Your task to perform on an android device: change keyboard looks Image 0: 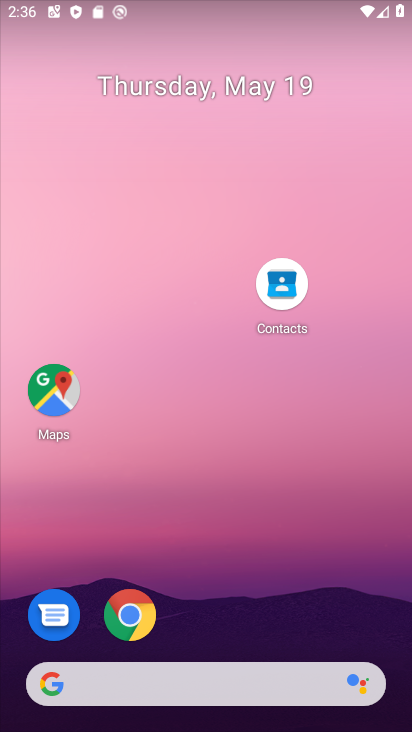
Step 0: drag from (225, 595) to (216, 106)
Your task to perform on an android device: change keyboard looks Image 1: 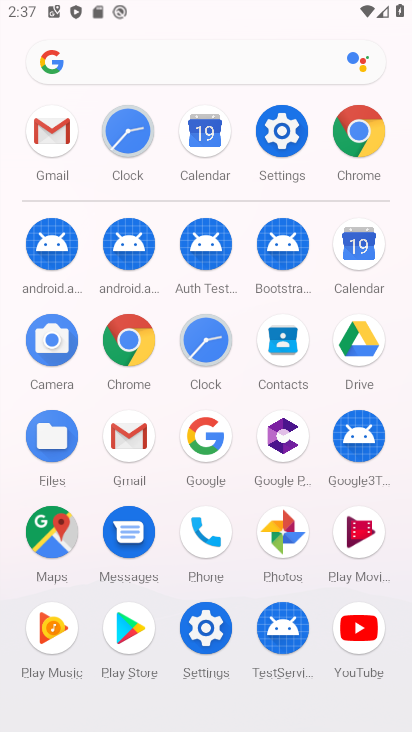
Step 1: click (277, 155)
Your task to perform on an android device: change keyboard looks Image 2: 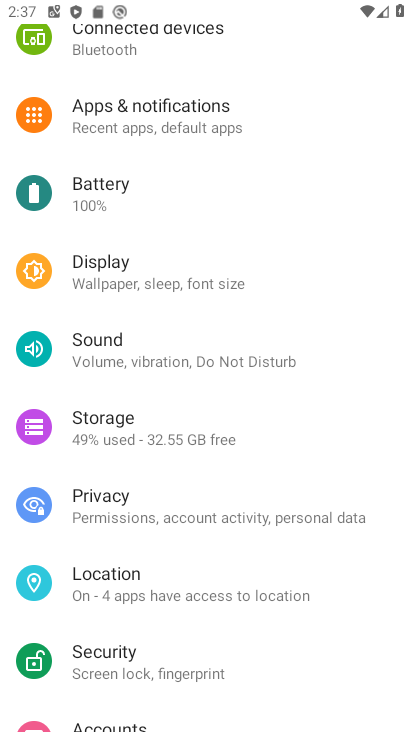
Step 2: drag from (168, 454) to (174, 97)
Your task to perform on an android device: change keyboard looks Image 3: 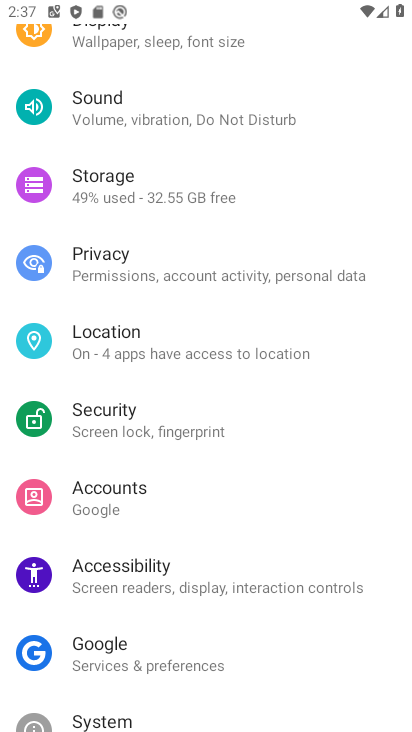
Step 3: drag from (185, 463) to (225, 57)
Your task to perform on an android device: change keyboard looks Image 4: 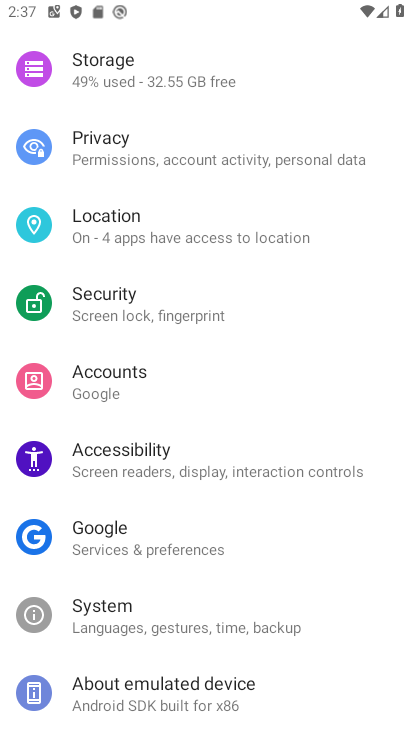
Step 4: click (158, 623)
Your task to perform on an android device: change keyboard looks Image 5: 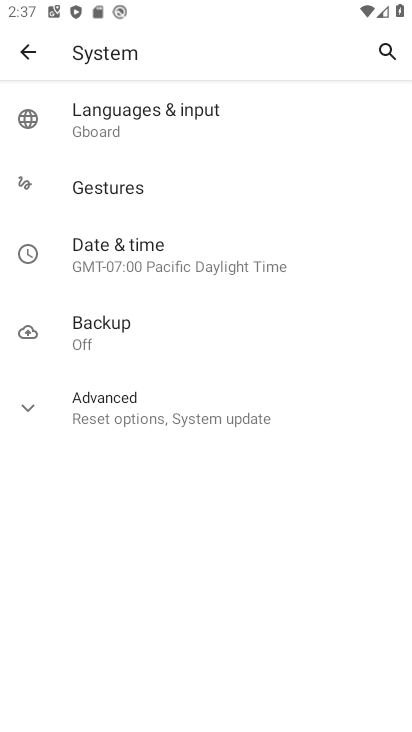
Step 5: click (218, 128)
Your task to perform on an android device: change keyboard looks Image 6: 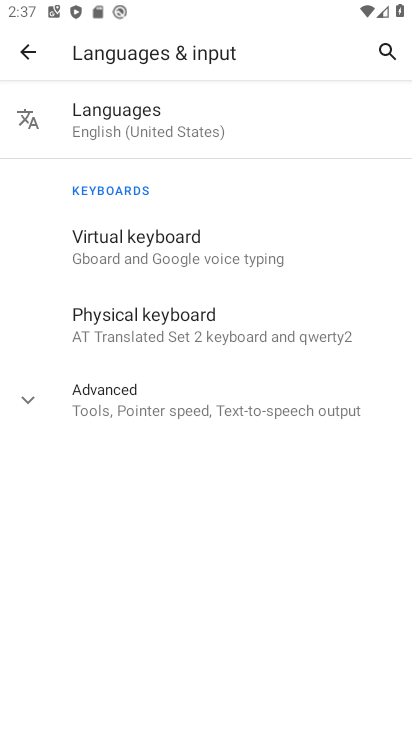
Step 6: click (196, 250)
Your task to perform on an android device: change keyboard looks Image 7: 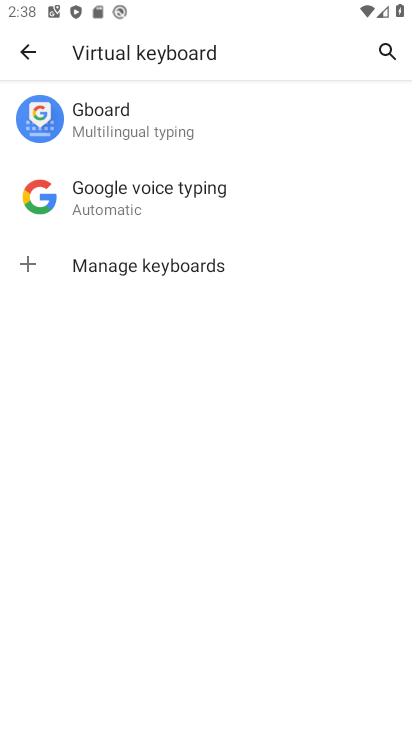
Step 7: click (196, 131)
Your task to perform on an android device: change keyboard looks Image 8: 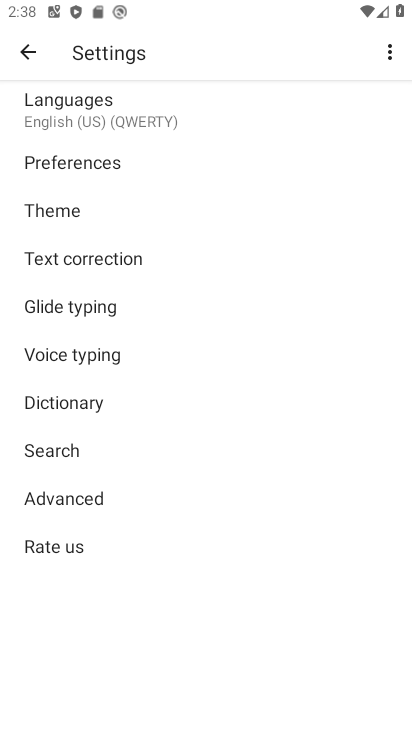
Step 8: click (166, 211)
Your task to perform on an android device: change keyboard looks Image 9: 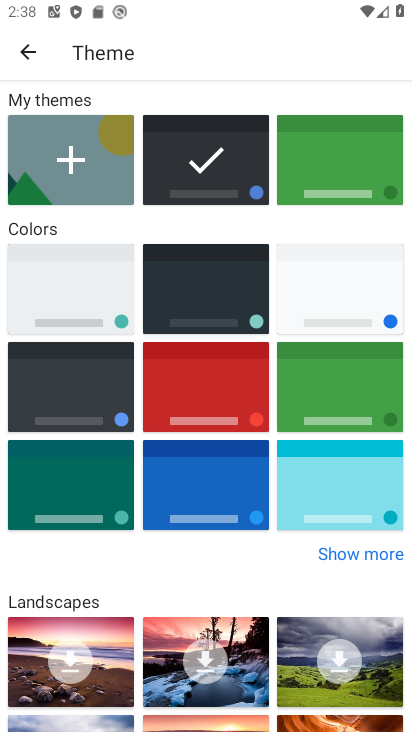
Step 9: click (362, 180)
Your task to perform on an android device: change keyboard looks Image 10: 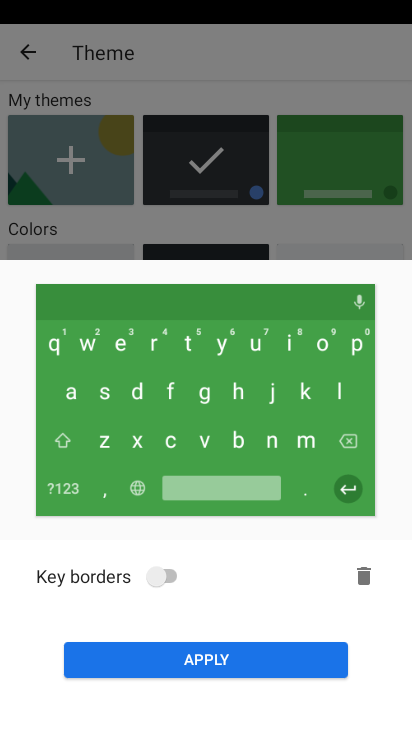
Step 10: click (216, 670)
Your task to perform on an android device: change keyboard looks Image 11: 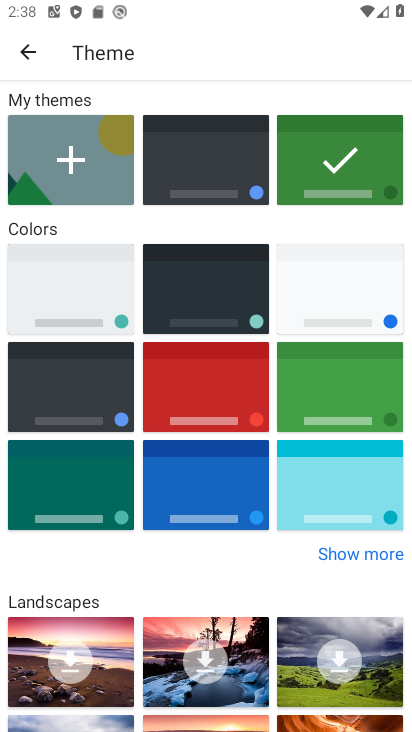
Step 11: task complete